Your task to perform on an android device: Search for the best selling jewelry on Etsy. Image 0: 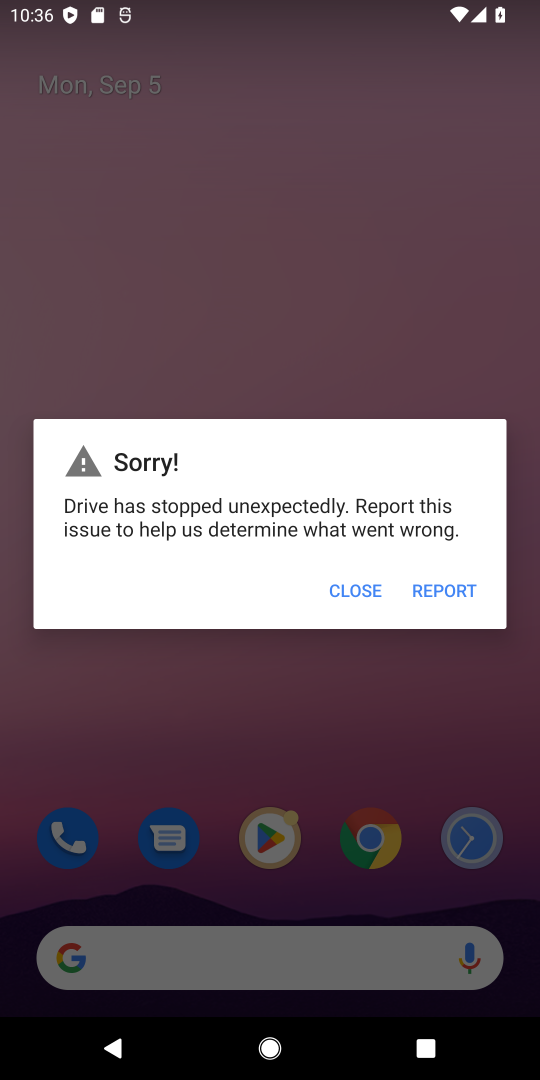
Step 0: click (359, 593)
Your task to perform on an android device: Search for the best selling jewelry on Etsy. Image 1: 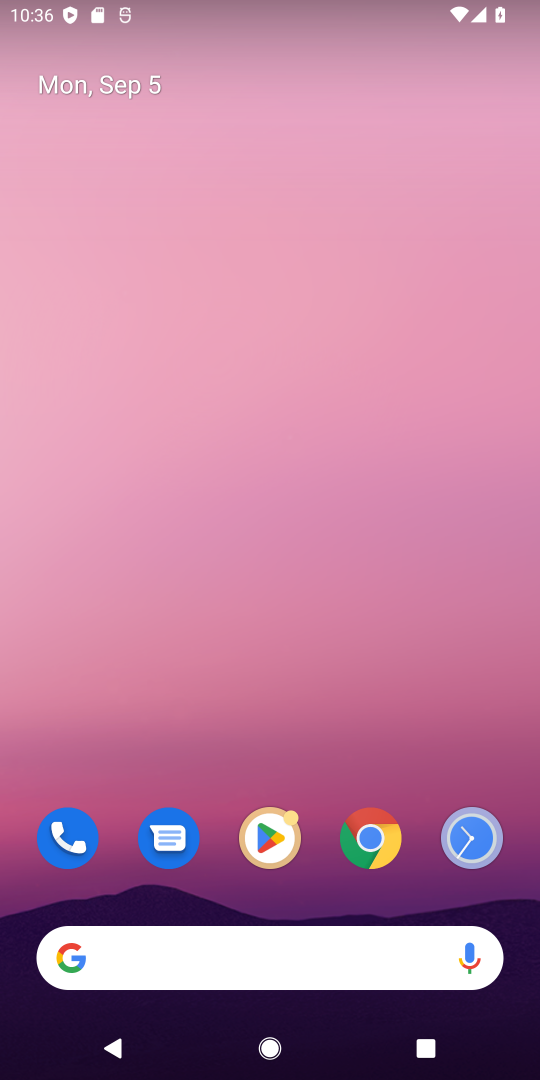
Step 1: click (350, 943)
Your task to perform on an android device: Search for the best selling jewelry on Etsy. Image 2: 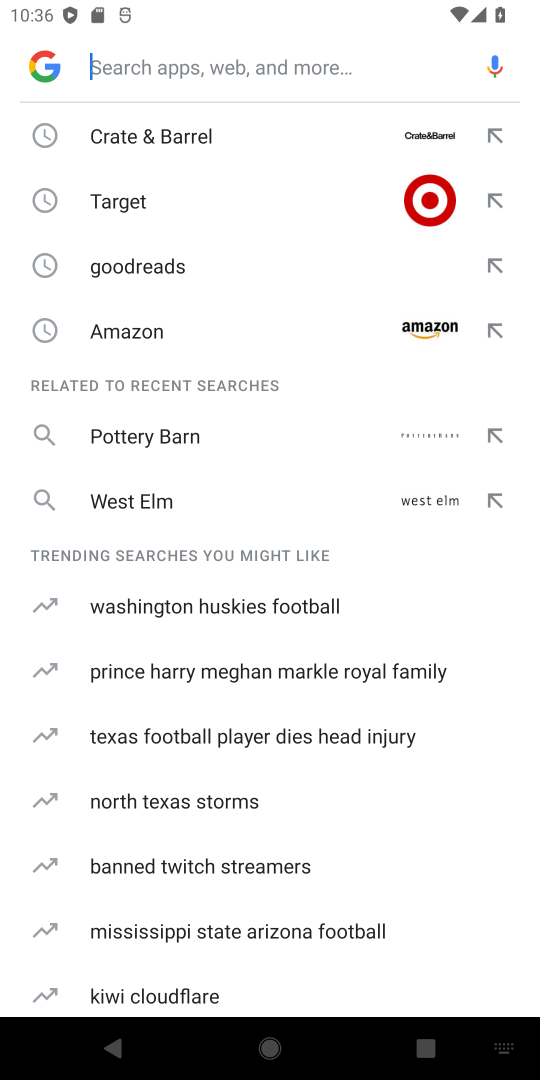
Step 2: type "Etsy."
Your task to perform on an android device: Search for the best selling jewelry on Etsy. Image 3: 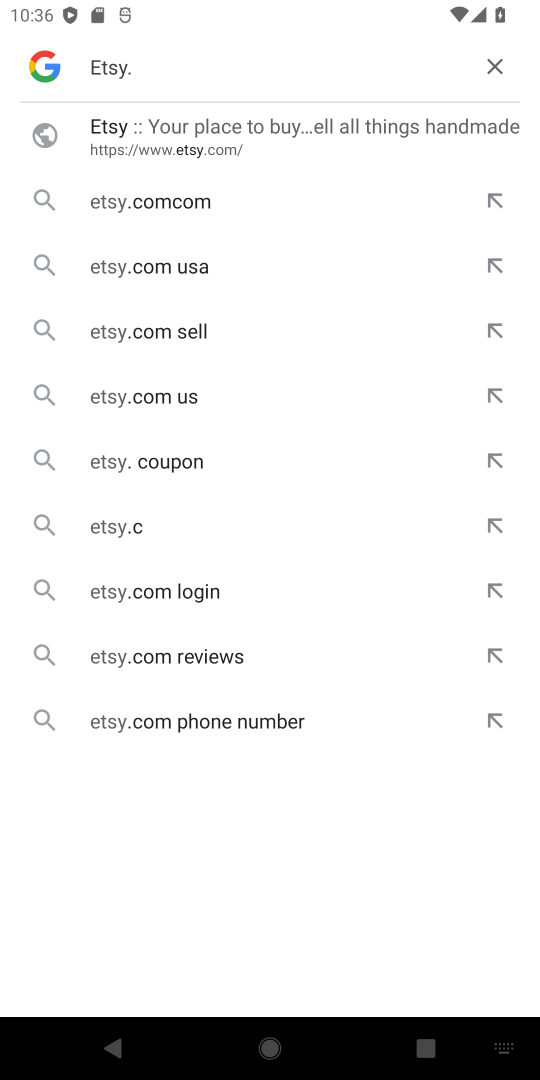
Step 3: click (203, 127)
Your task to perform on an android device: Search for the best selling jewelry on Etsy. Image 4: 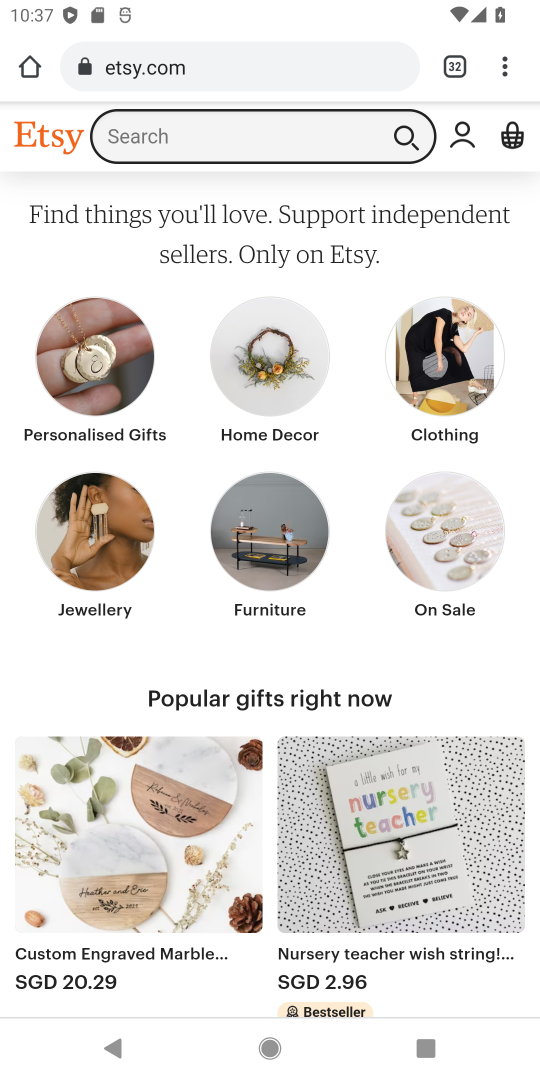
Step 4: click (224, 122)
Your task to perform on an android device: Search for the best selling jewelry on Etsy. Image 5: 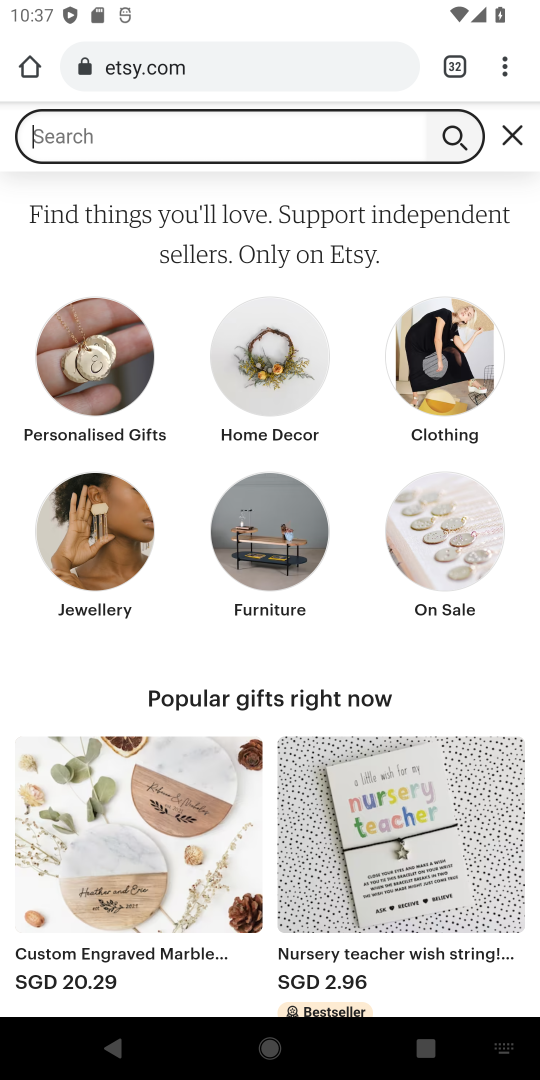
Step 5: click (56, 557)
Your task to perform on an android device: Search for the best selling jewelry on Etsy. Image 6: 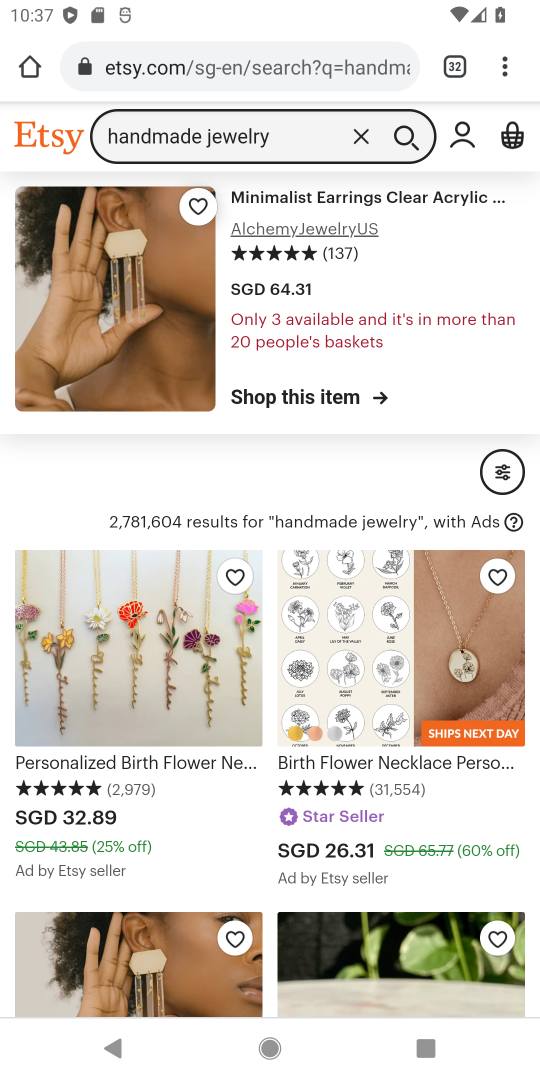
Step 6: task complete